Your task to perform on an android device: Turn on the flashlight Image 0: 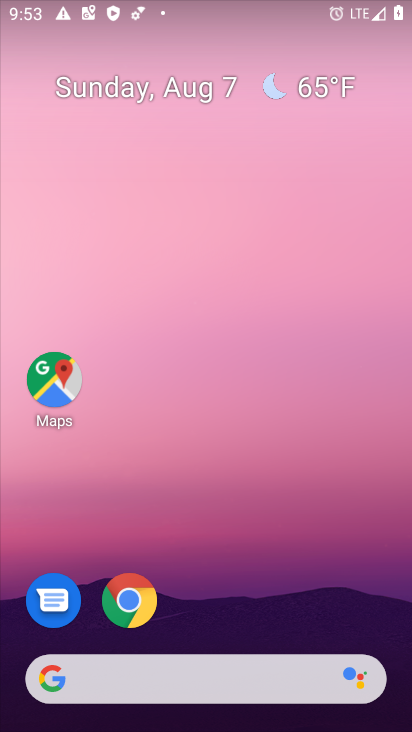
Step 0: drag from (186, 570) to (201, 34)
Your task to perform on an android device: Turn on the flashlight Image 1: 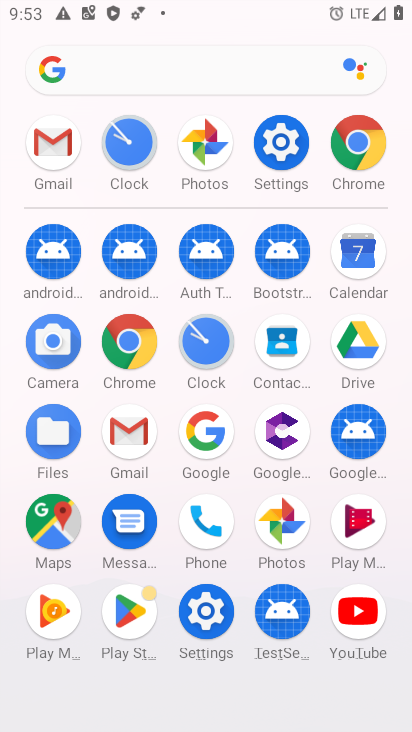
Step 1: task complete